Your task to perform on an android device: What's the weather? Image 0: 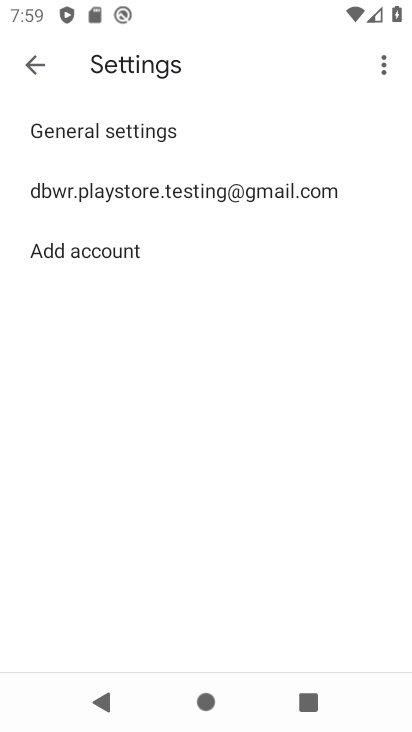
Step 0: press home button
Your task to perform on an android device: What's the weather? Image 1: 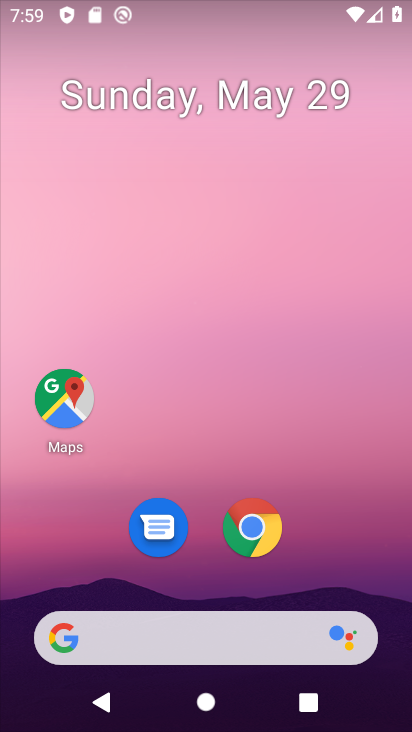
Step 1: drag from (7, 262) to (411, 264)
Your task to perform on an android device: What's the weather? Image 2: 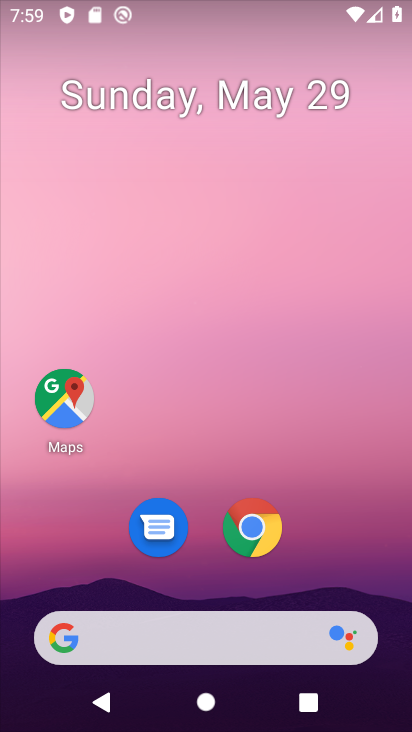
Step 2: drag from (5, 227) to (407, 245)
Your task to perform on an android device: What's the weather? Image 3: 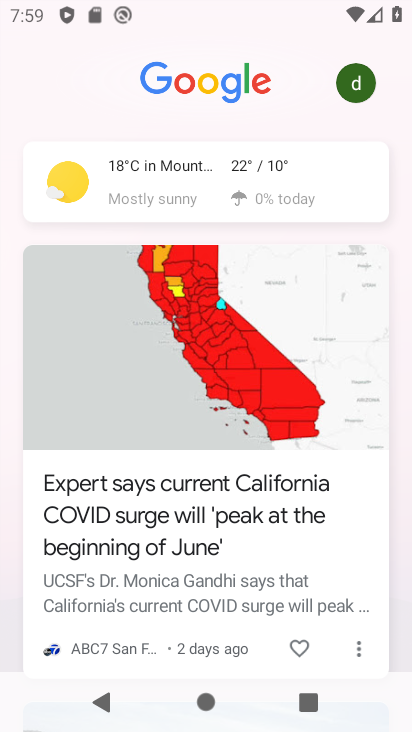
Step 3: click (301, 161)
Your task to perform on an android device: What's the weather? Image 4: 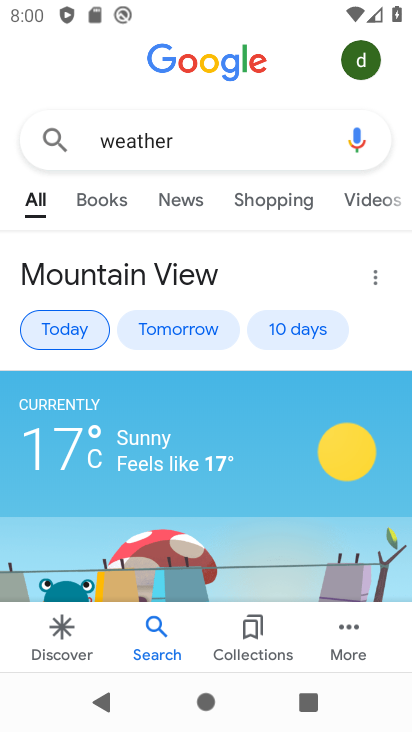
Step 4: task complete